Your task to perform on an android device: read, delete, or share a saved page in the chrome app Image 0: 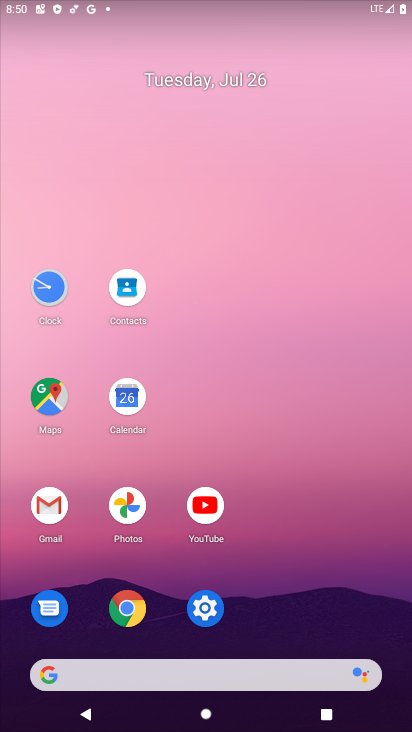
Step 0: click (129, 612)
Your task to perform on an android device: read, delete, or share a saved page in the chrome app Image 1: 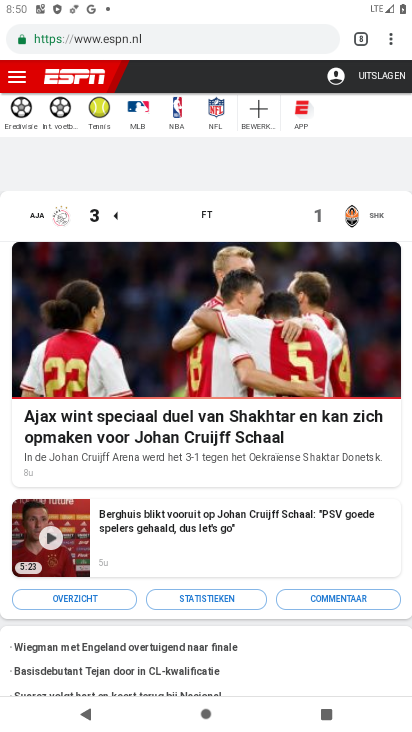
Step 1: click (392, 38)
Your task to perform on an android device: read, delete, or share a saved page in the chrome app Image 2: 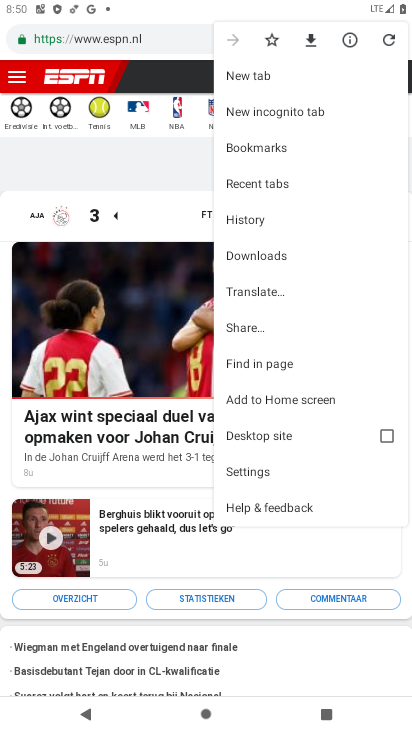
Step 2: click (251, 260)
Your task to perform on an android device: read, delete, or share a saved page in the chrome app Image 3: 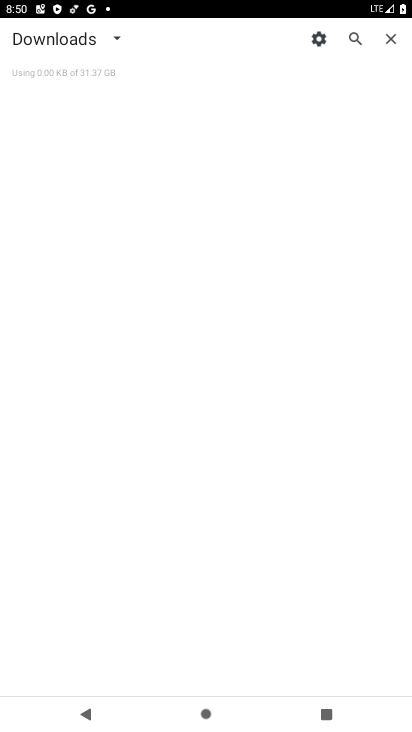
Step 3: task complete